Your task to perform on an android device: Go to internet settings Image 0: 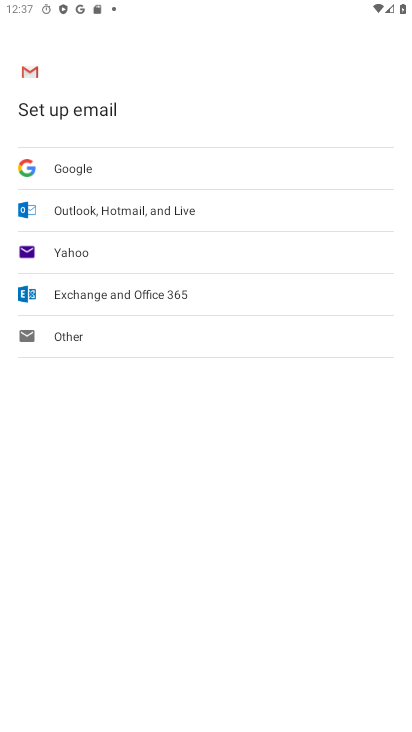
Step 0: press home button
Your task to perform on an android device: Go to internet settings Image 1: 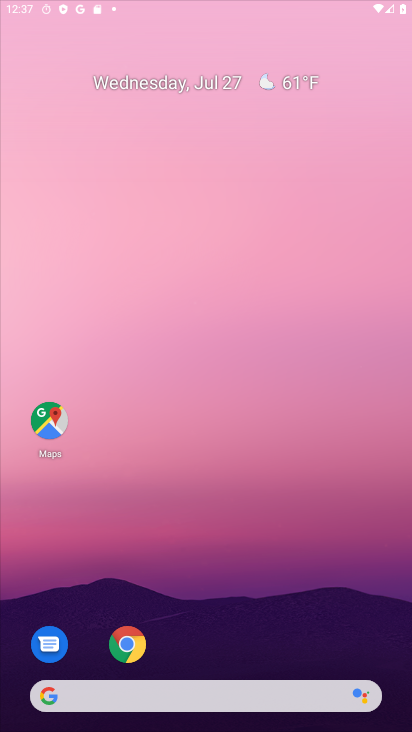
Step 1: drag from (217, 604) to (344, 182)
Your task to perform on an android device: Go to internet settings Image 2: 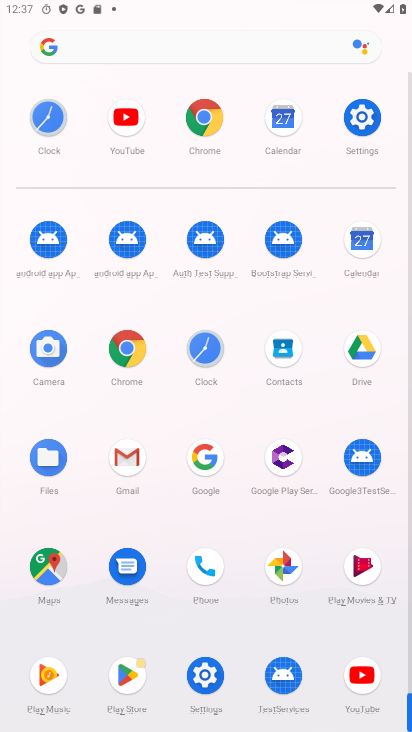
Step 2: click (209, 660)
Your task to perform on an android device: Go to internet settings Image 3: 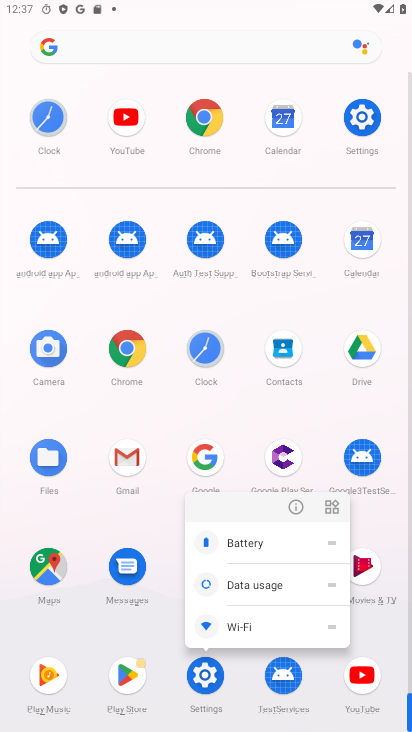
Step 3: click (296, 506)
Your task to perform on an android device: Go to internet settings Image 4: 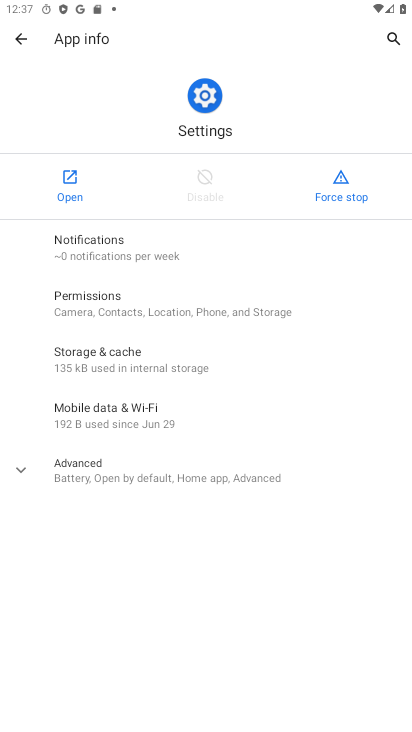
Step 4: click (64, 173)
Your task to perform on an android device: Go to internet settings Image 5: 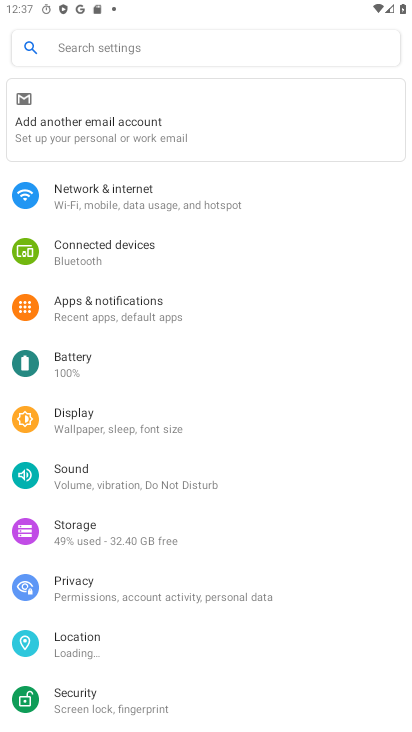
Step 5: click (124, 202)
Your task to perform on an android device: Go to internet settings Image 6: 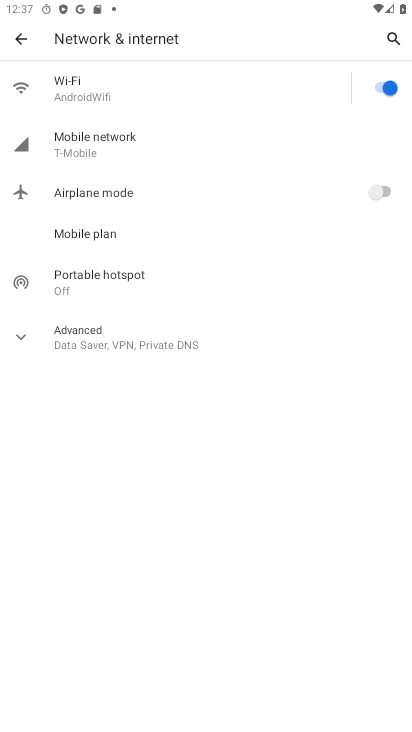
Step 6: task complete